Your task to perform on an android device: Play the latest video from the BBC Image 0: 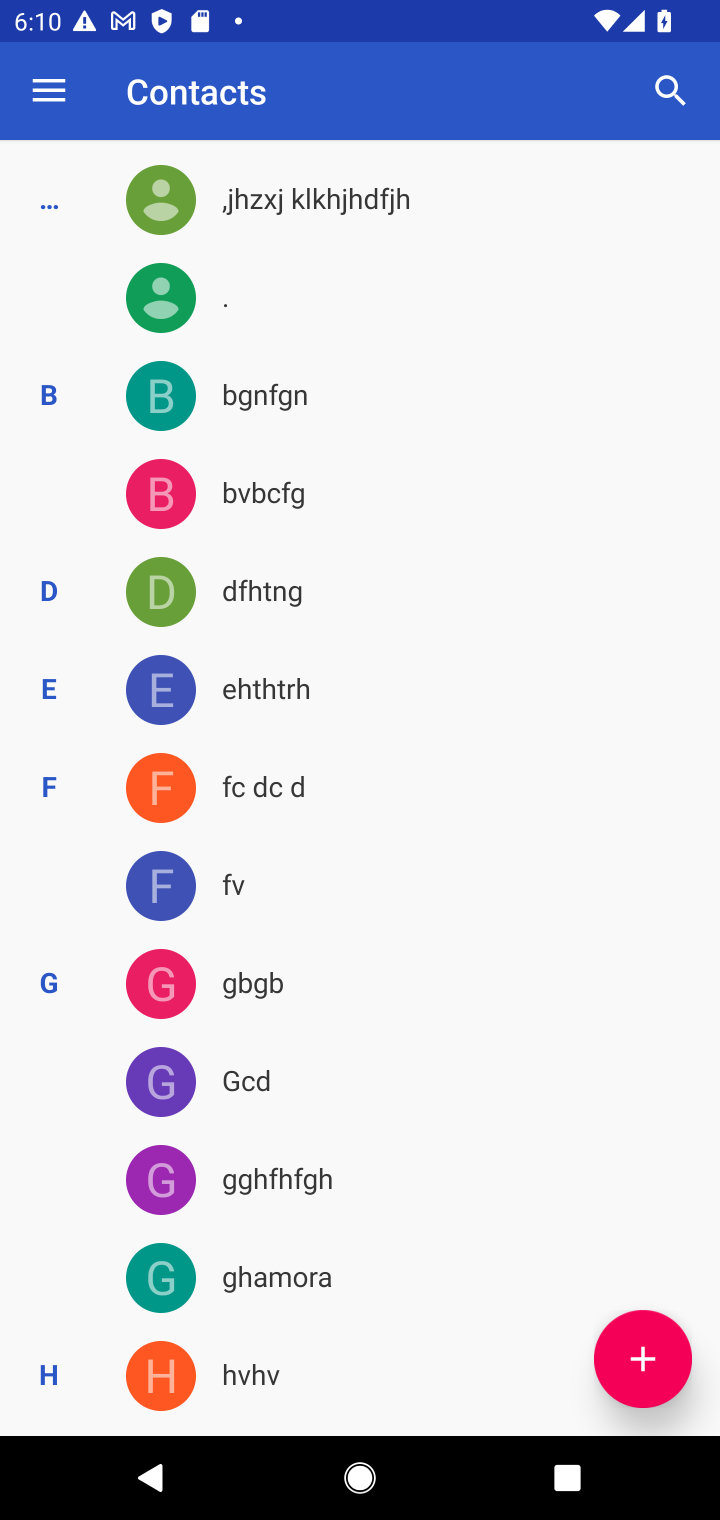
Step 0: press home button
Your task to perform on an android device: Play the latest video from the BBC Image 1: 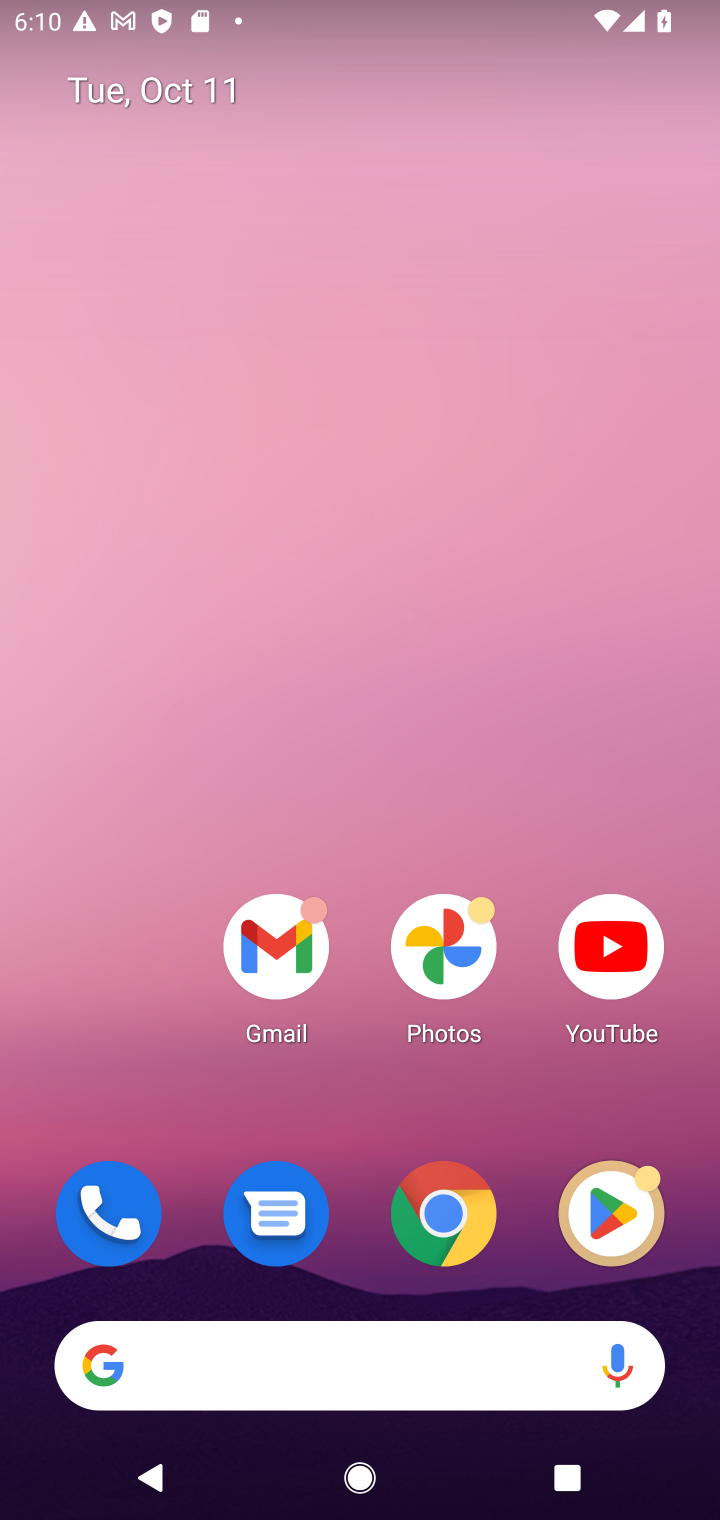
Step 1: drag from (383, 989) to (358, 255)
Your task to perform on an android device: Play the latest video from the BBC Image 2: 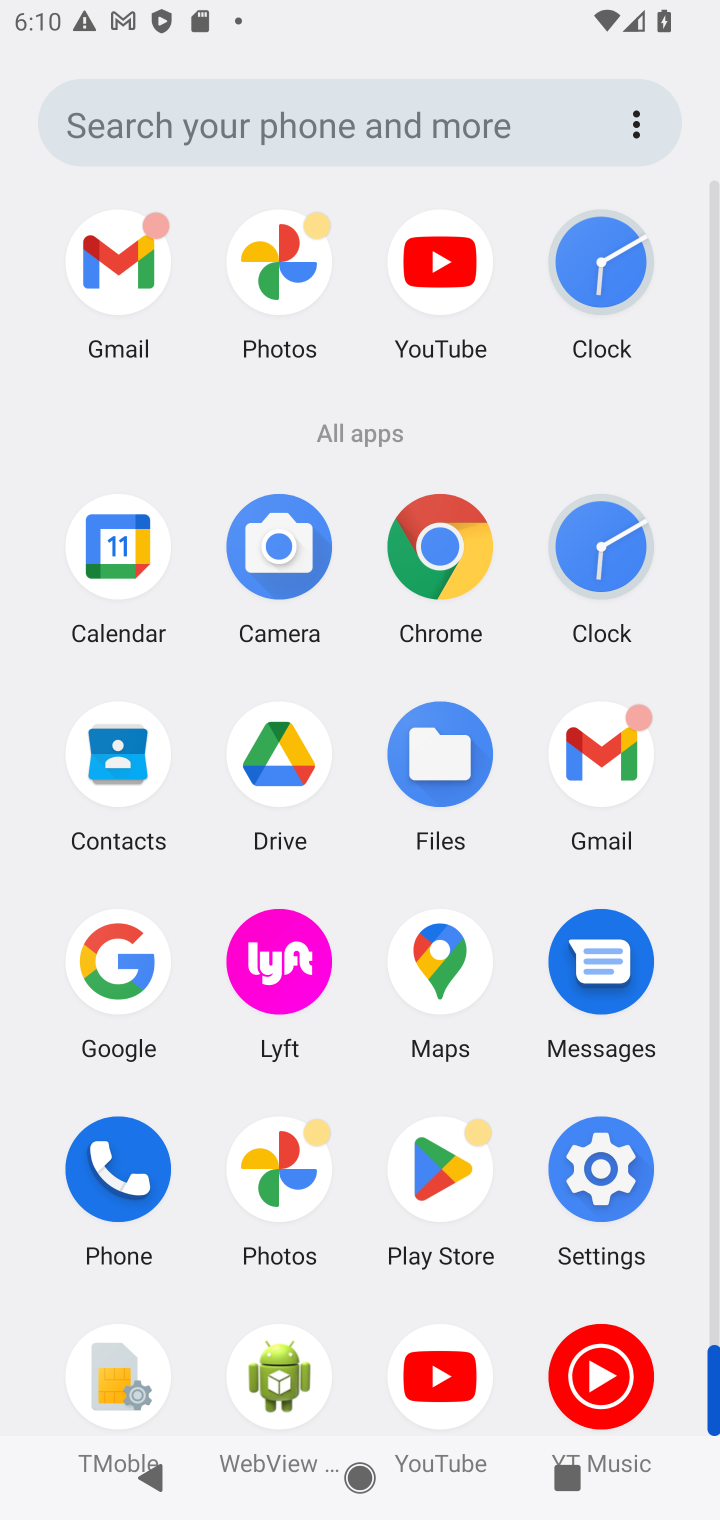
Step 2: click (103, 953)
Your task to perform on an android device: Play the latest video from the BBC Image 3: 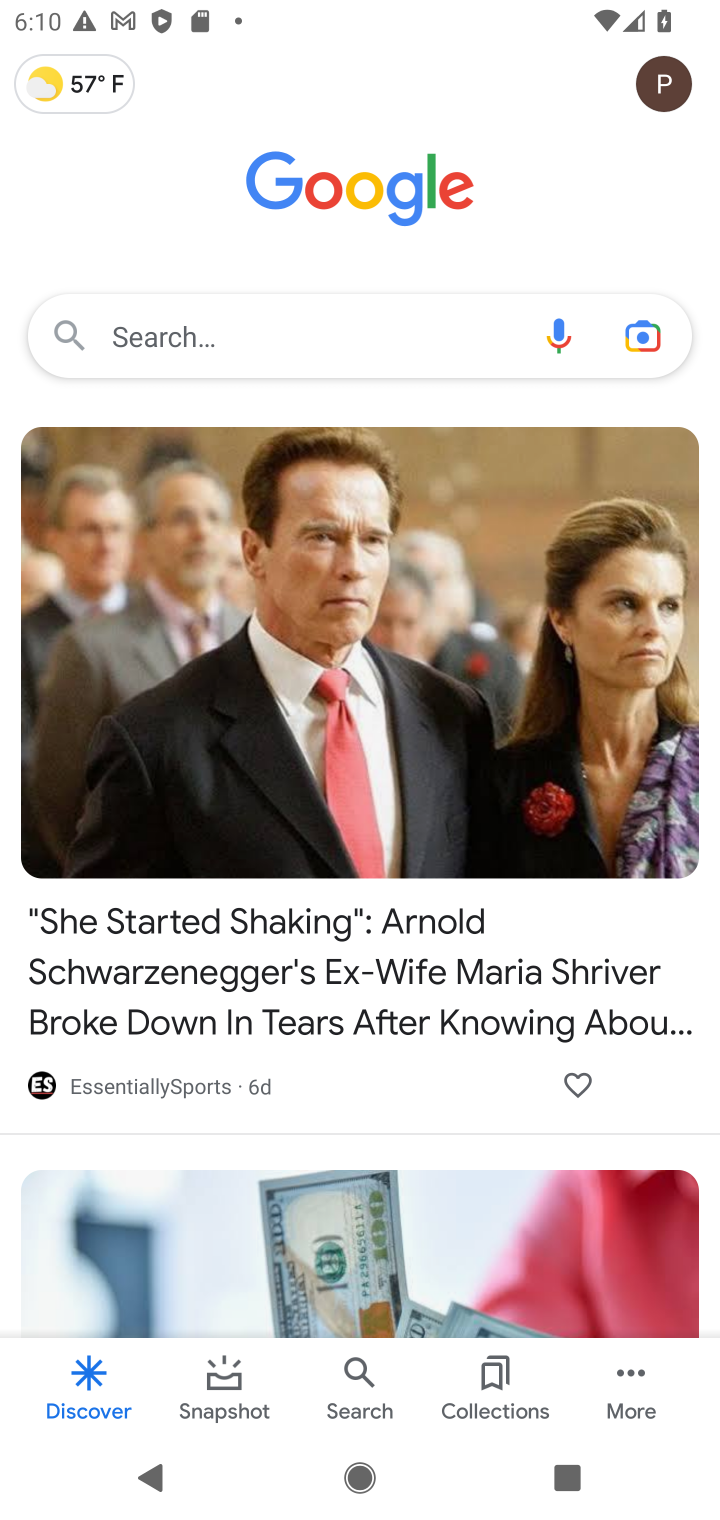
Step 3: click (234, 329)
Your task to perform on an android device: Play the latest video from the BBC Image 4: 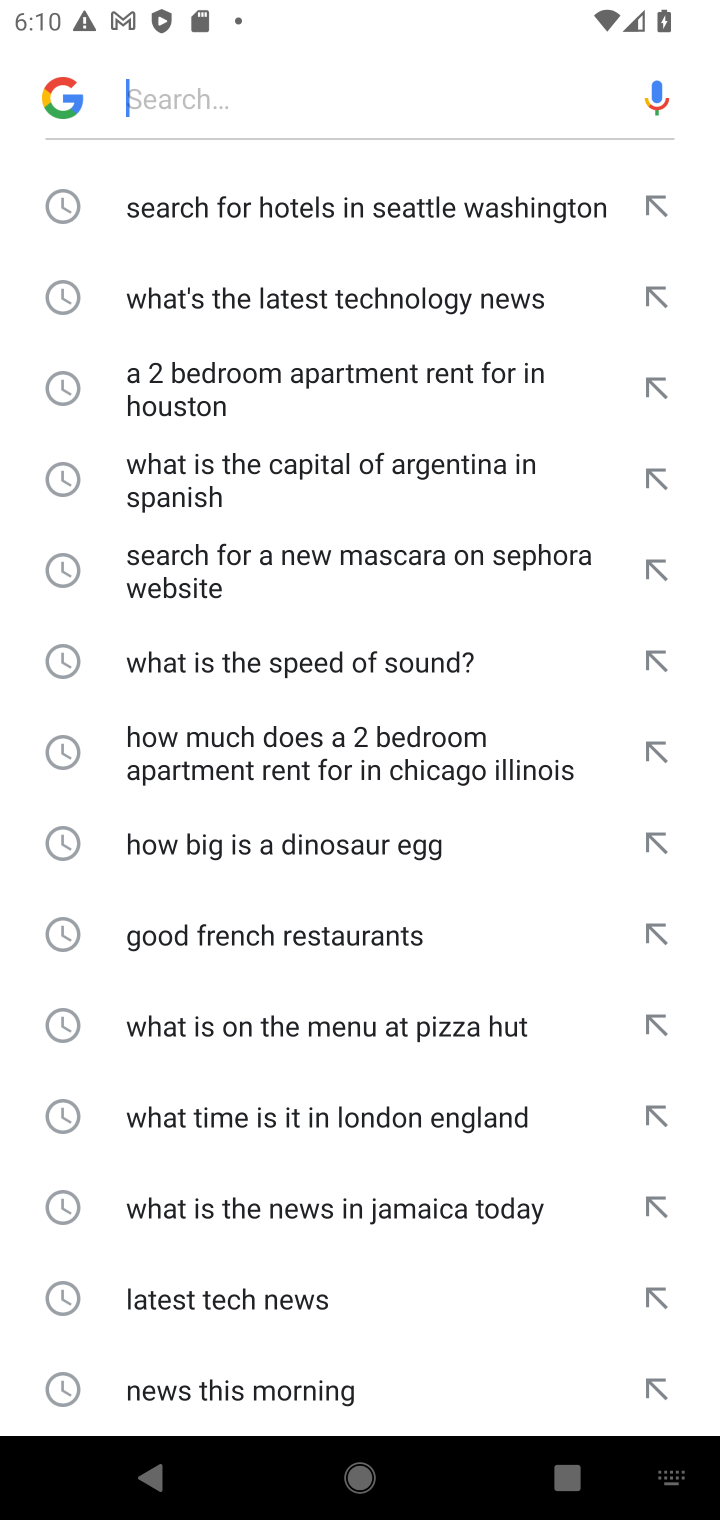
Step 4: type "Play the latest video from the BBC"
Your task to perform on an android device: Play the latest video from the BBC Image 5: 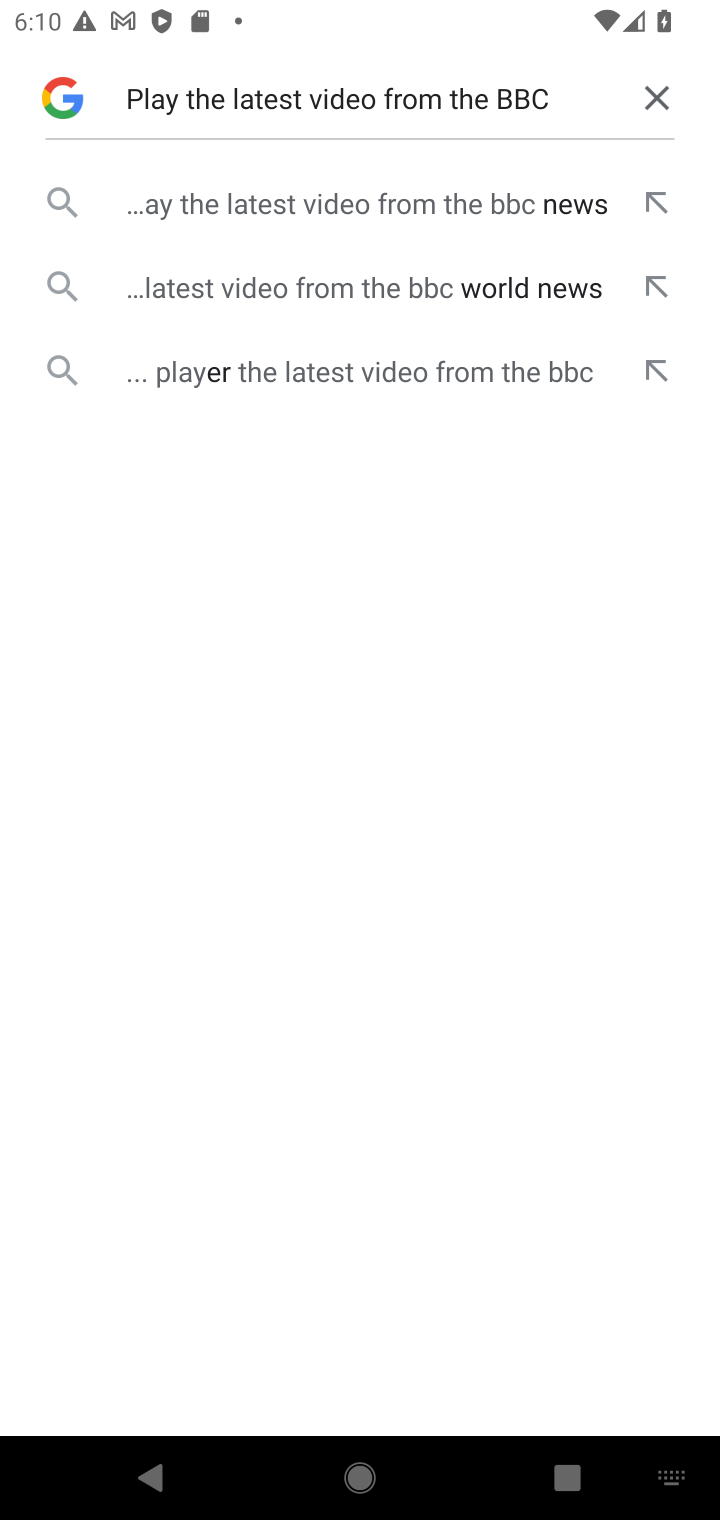
Step 5: click (393, 196)
Your task to perform on an android device: Play the latest video from the BBC Image 6: 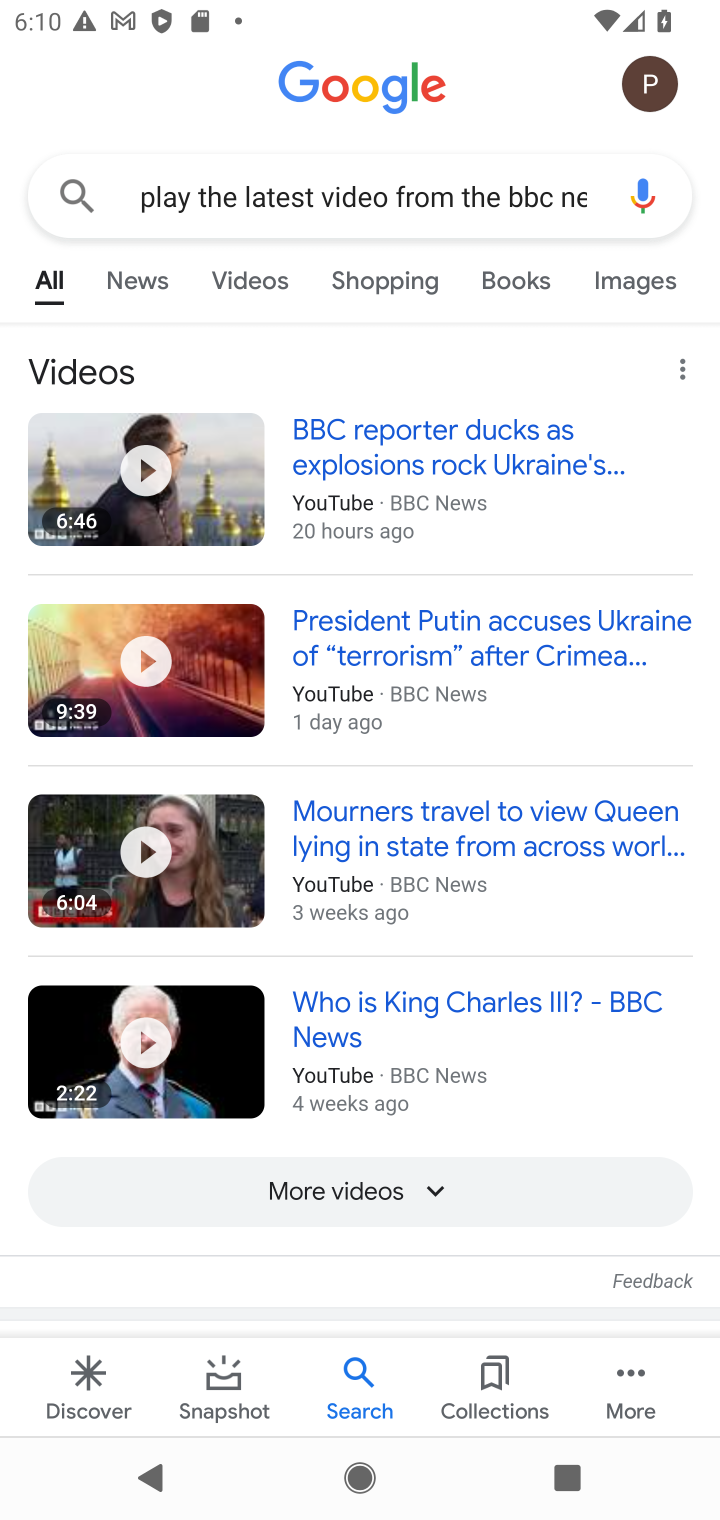
Step 6: click (296, 476)
Your task to perform on an android device: Play the latest video from the BBC Image 7: 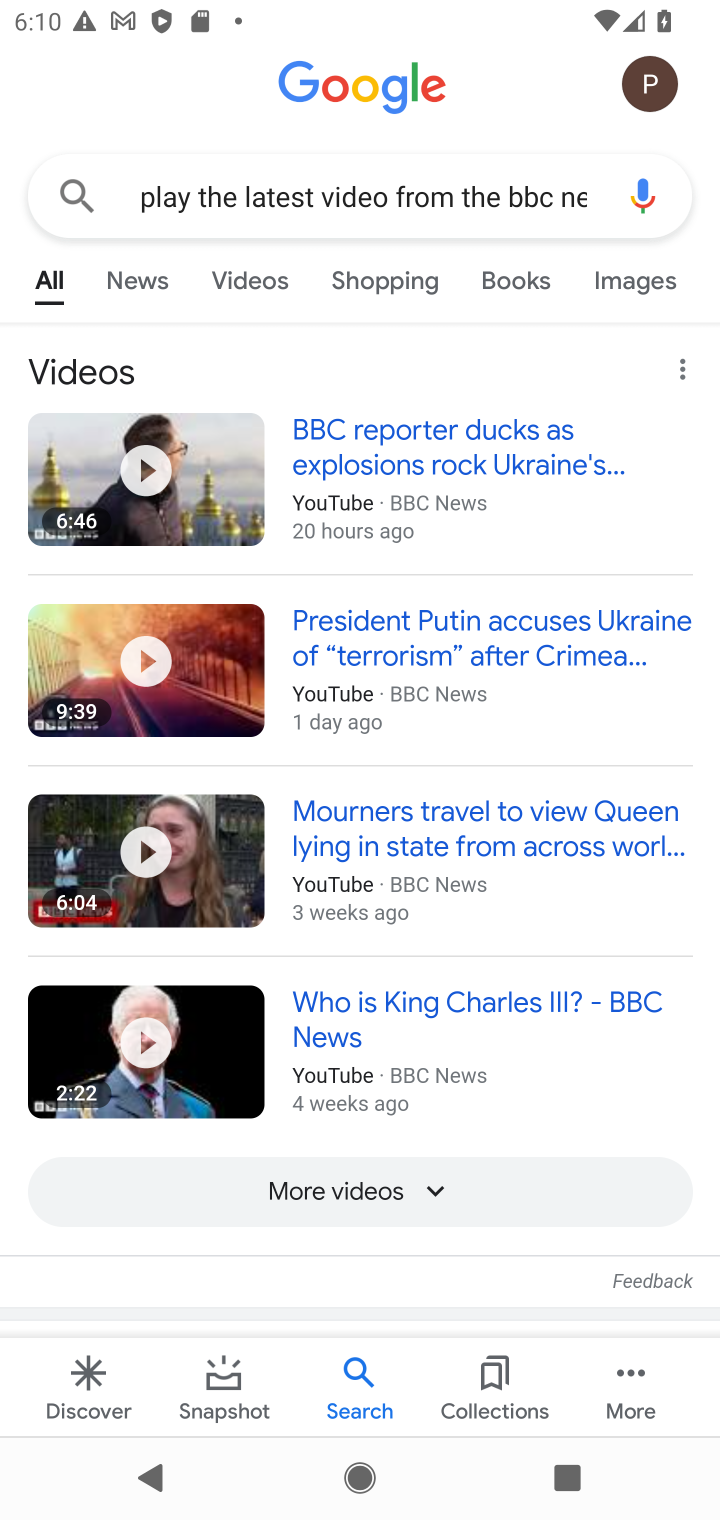
Step 7: click (397, 481)
Your task to perform on an android device: Play the latest video from the BBC Image 8: 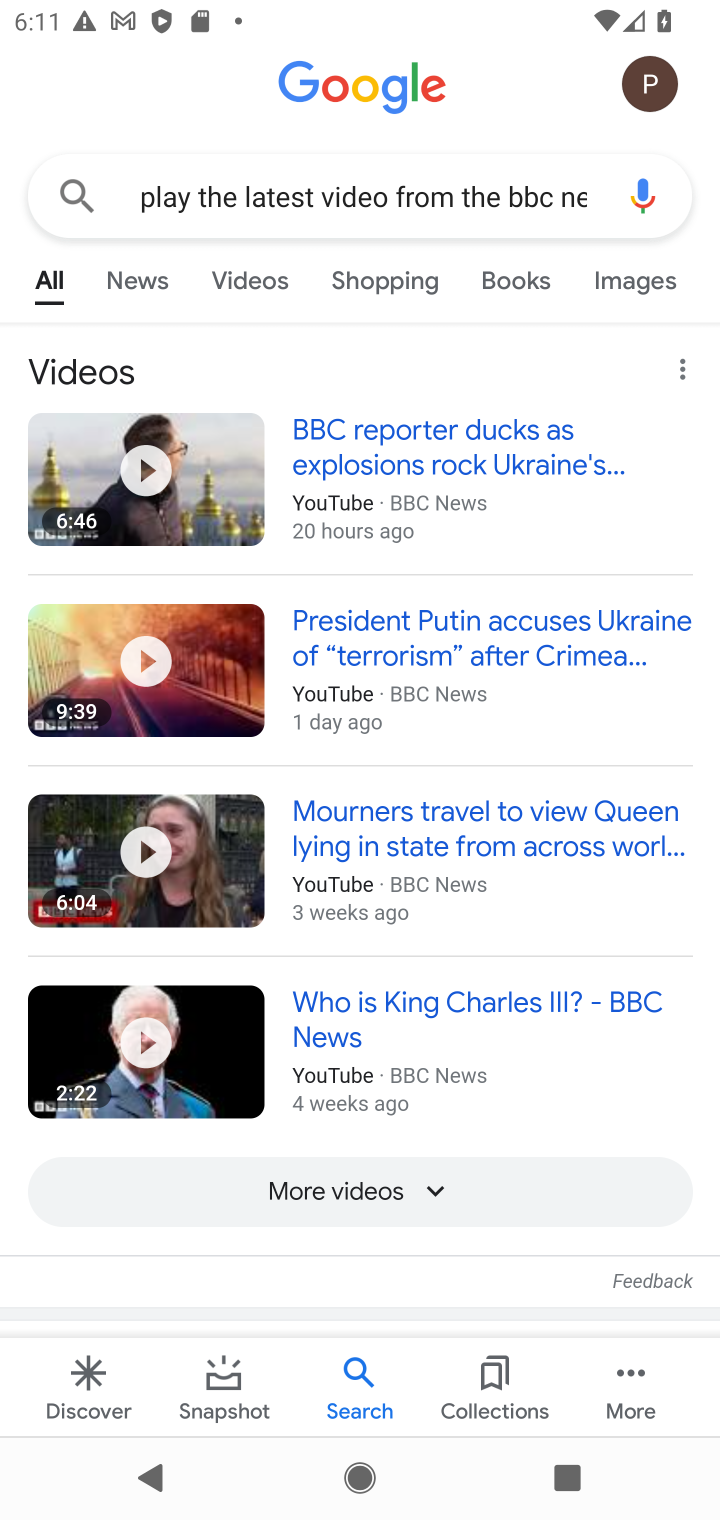
Step 8: task complete